Your task to perform on an android device: turn off priority inbox in the gmail app Image 0: 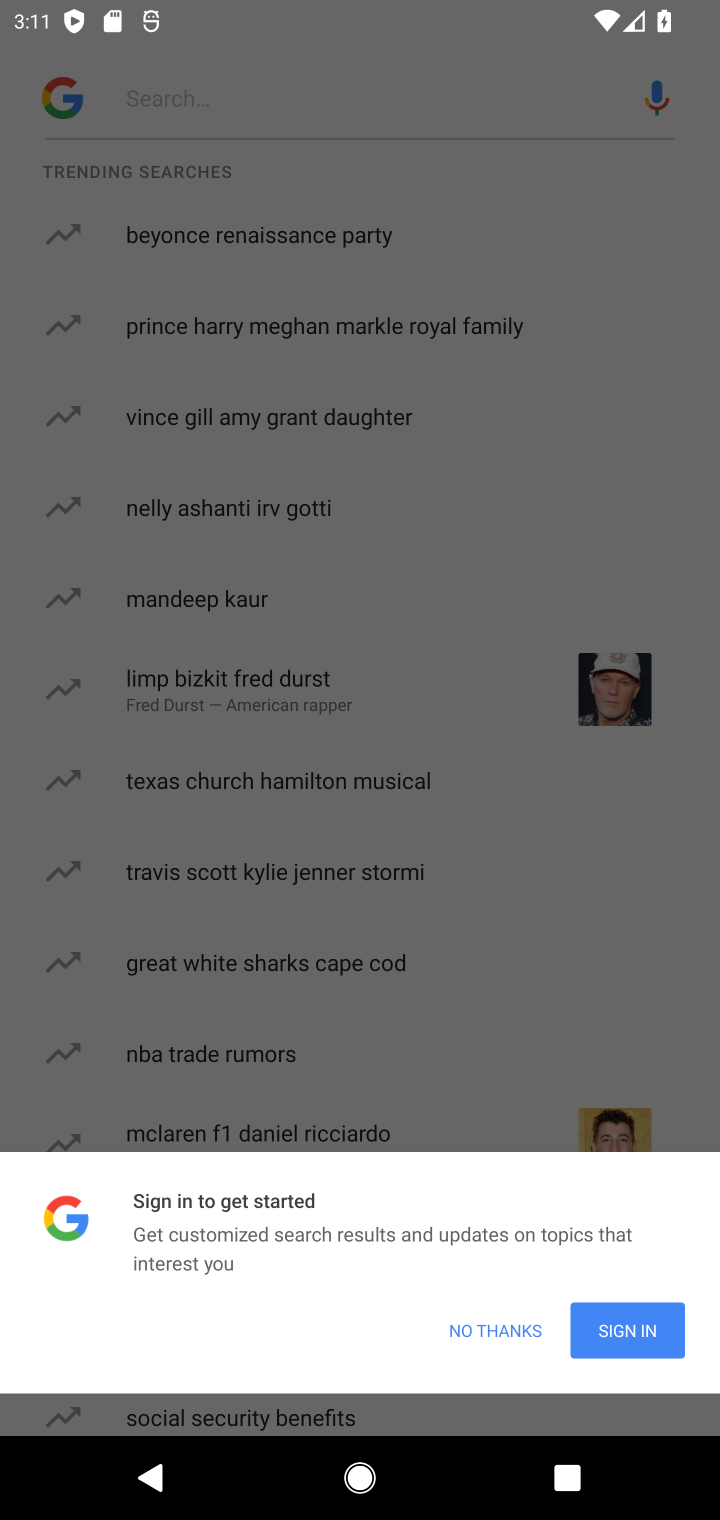
Step 0: press back button
Your task to perform on an android device: turn off priority inbox in the gmail app Image 1: 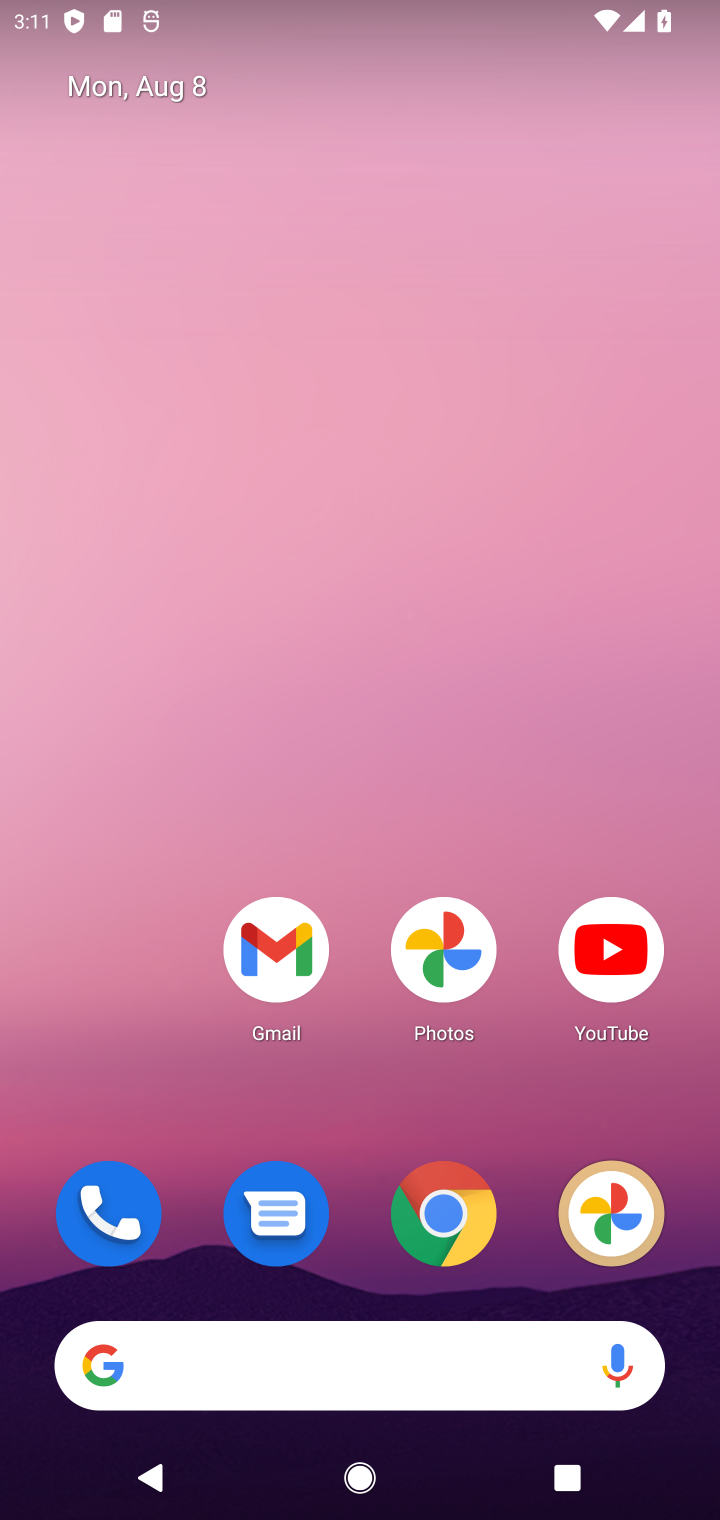
Step 1: press back button
Your task to perform on an android device: turn off priority inbox in the gmail app Image 2: 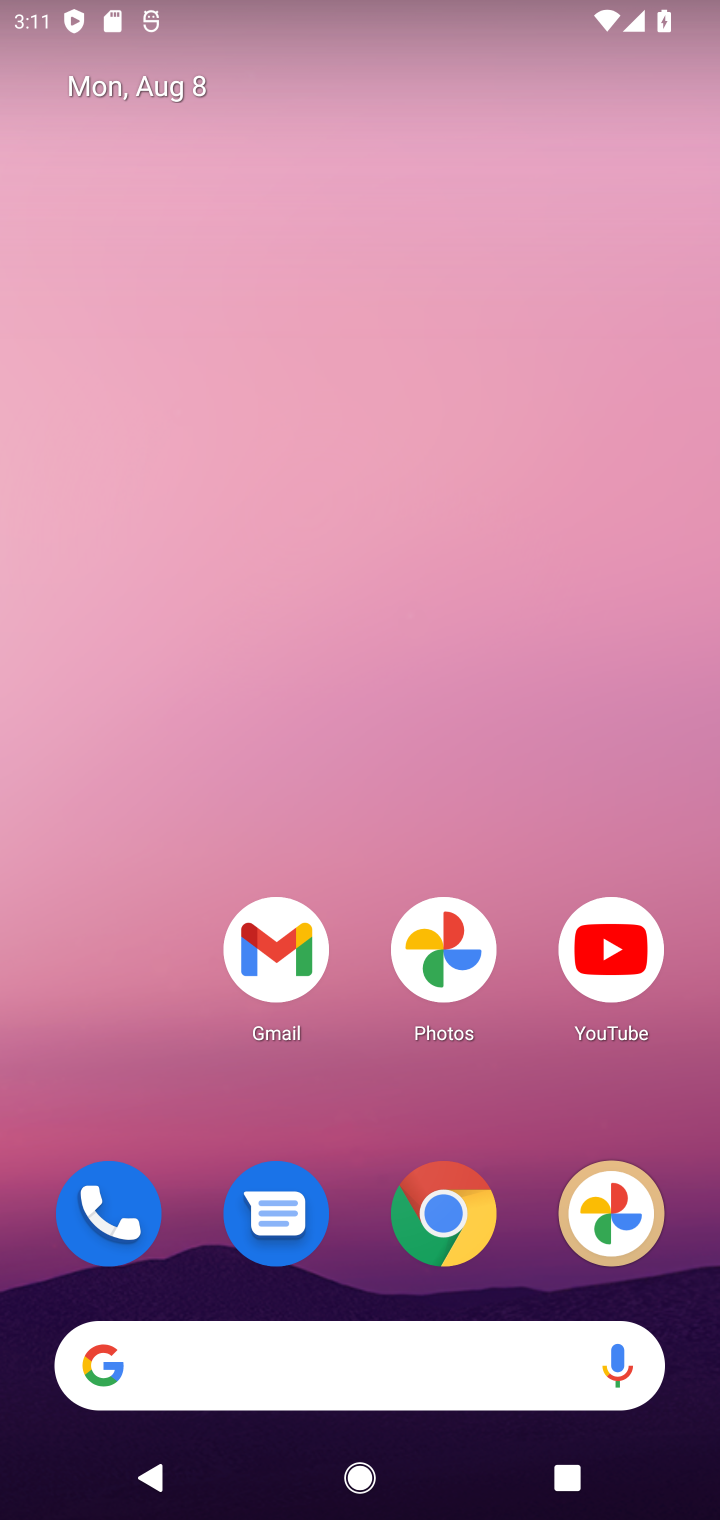
Step 2: drag from (445, 862) to (583, 1)
Your task to perform on an android device: turn off priority inbox in the gmail app Image 3: 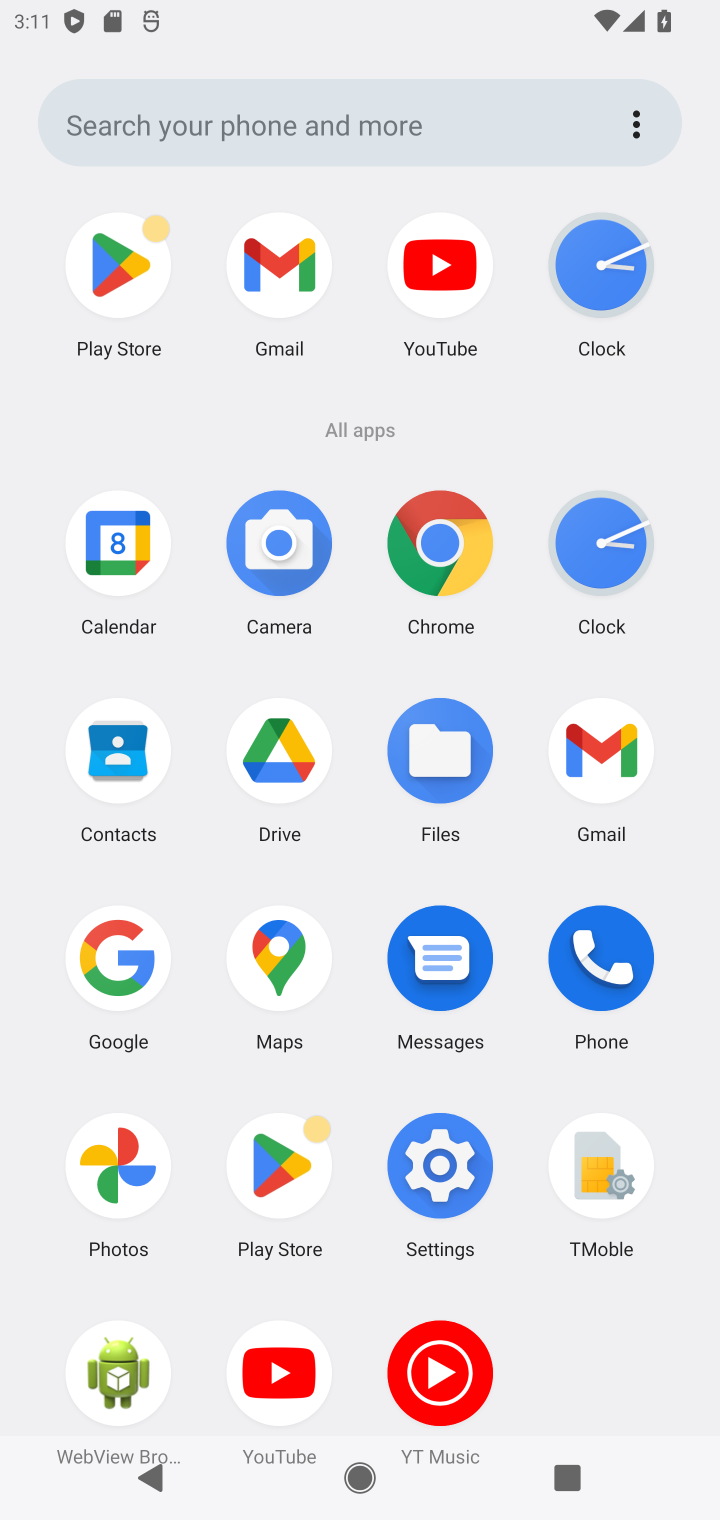
Step 3: click (285, 260)
Your task to perform on an android device: turn off priority inbox in the gmail app Image 4: 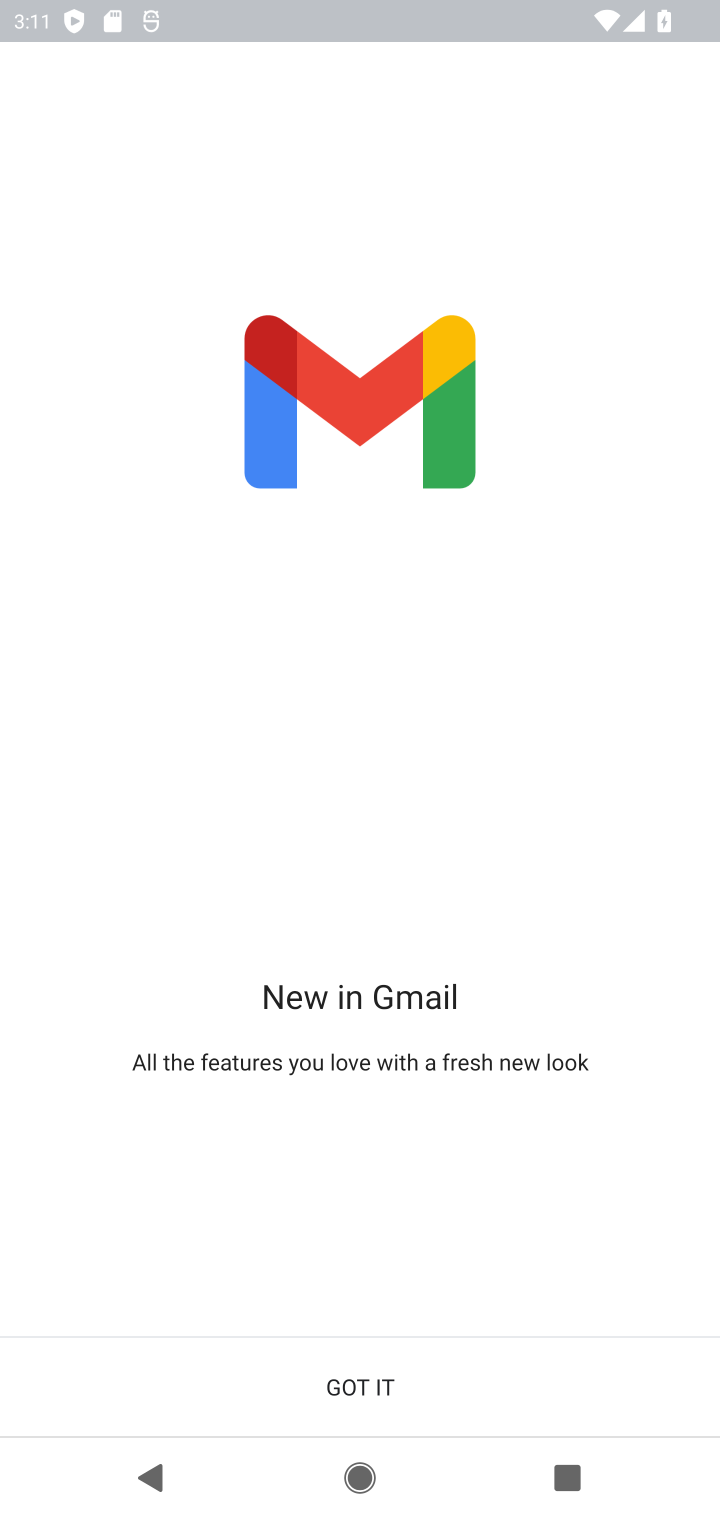
Step 4: click (311, 1390)
Your task to perform on an android device: turn off priority inbox in the gmail app Image 5: 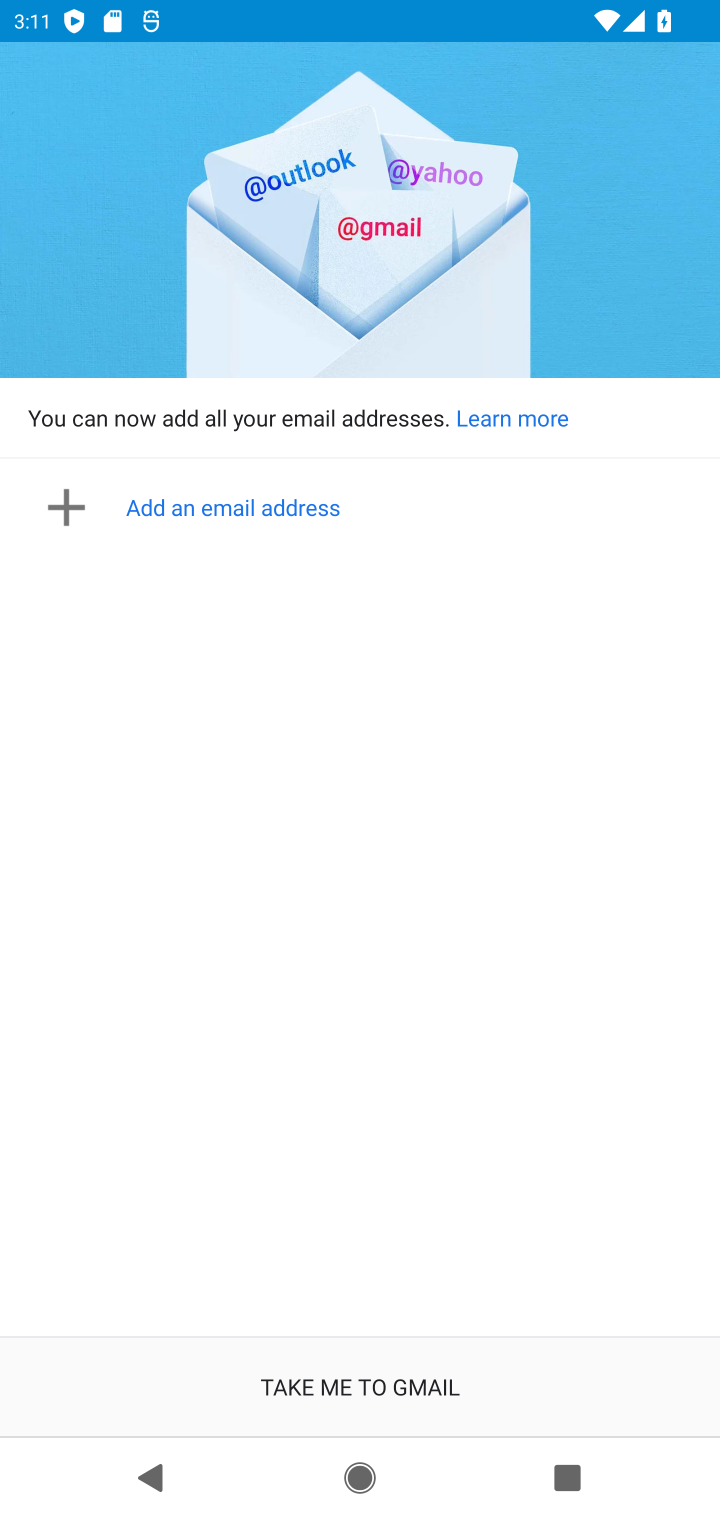
Step 5: click (318, 1384)
Your task to perform on an android device: turn off priority inbox in the gmail app Image 6: 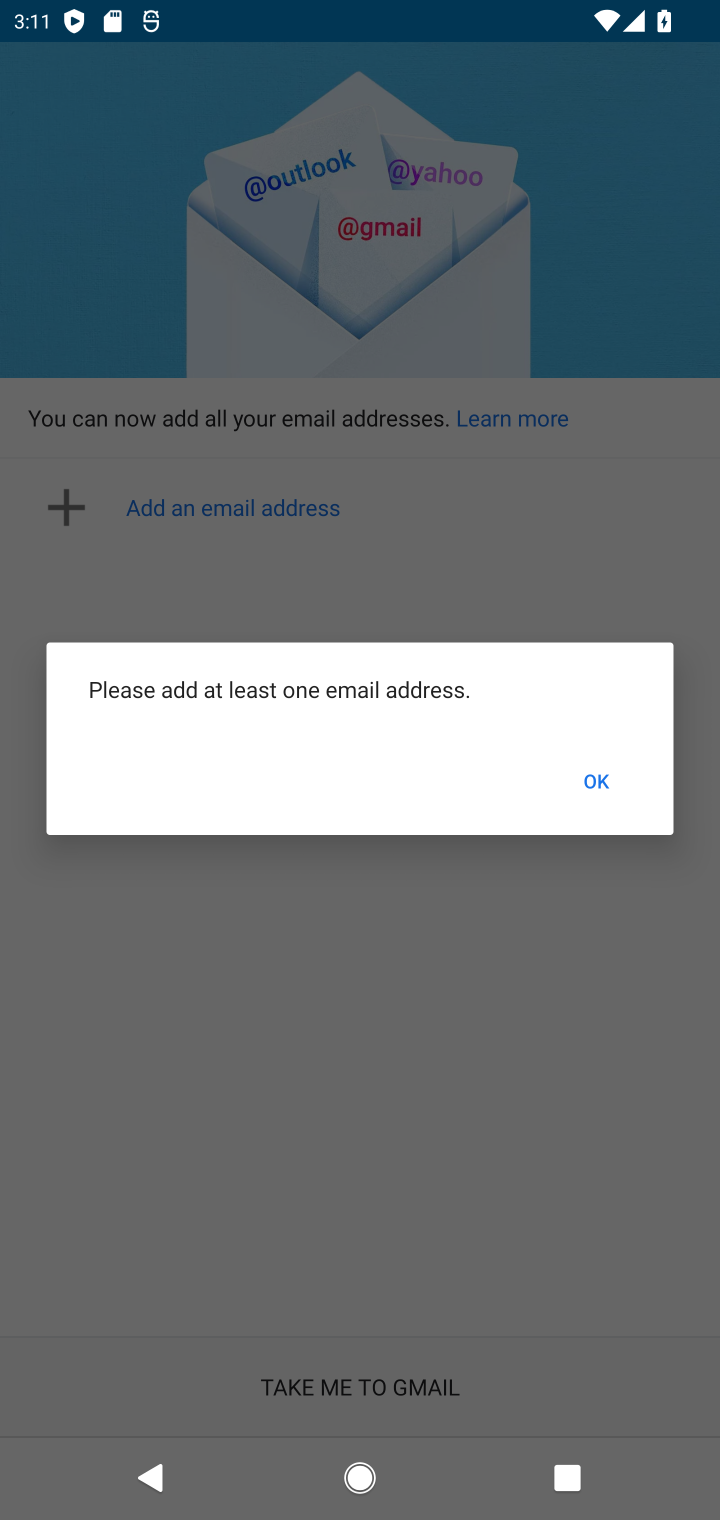
Step 6: click (605, 750)
Your task to perform on an android device: turn off priority inbox in the gmail app Image 7: 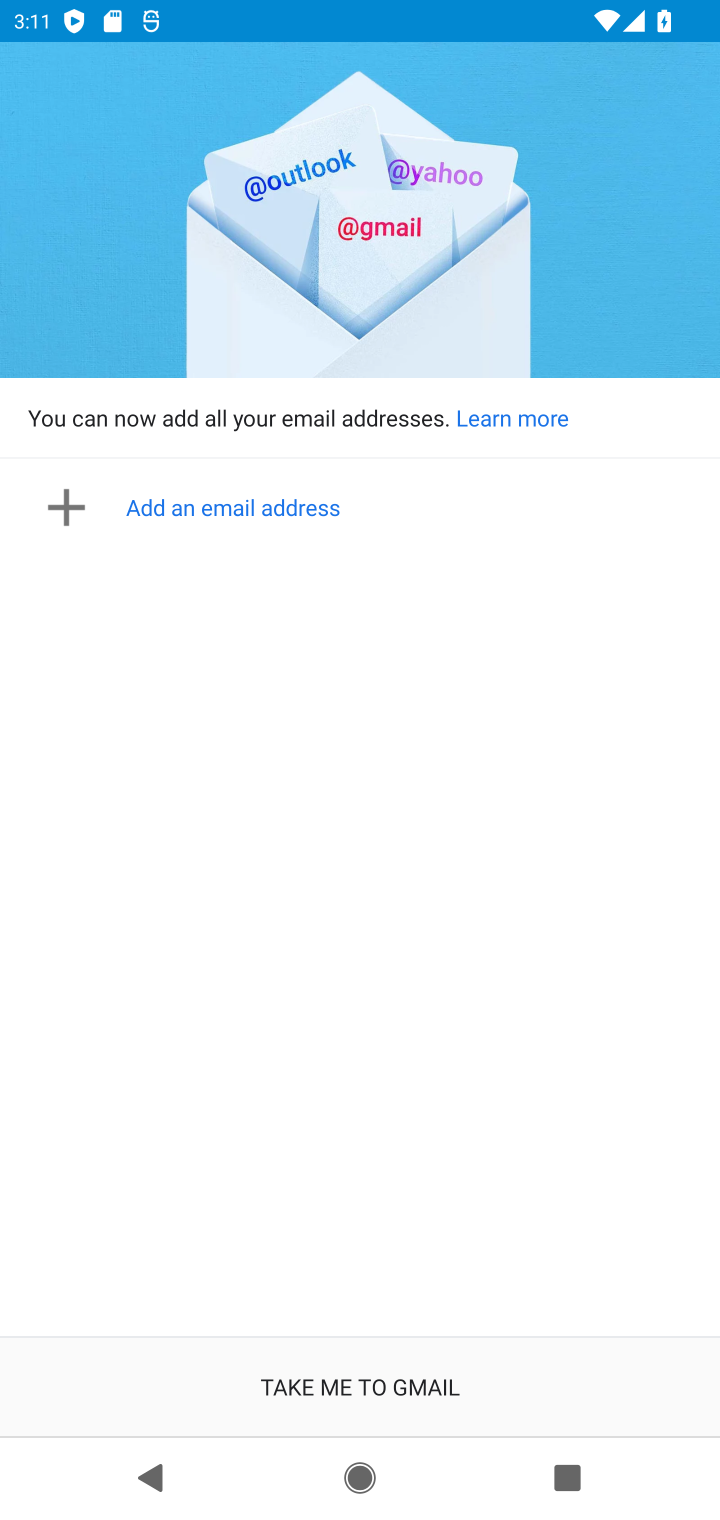
Step 7: task complete